Your task to perform on an android device: Open Android settings Image 0: 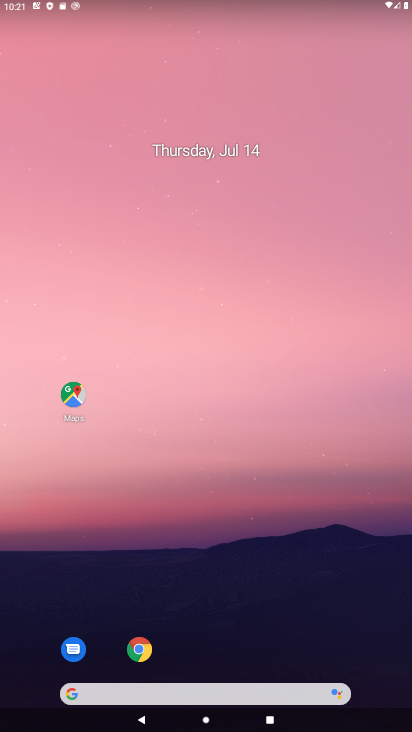
Step 0: drag from (215, 583) to (215, 62)
Your task to perform on an android device: Open Android settings Image 1: 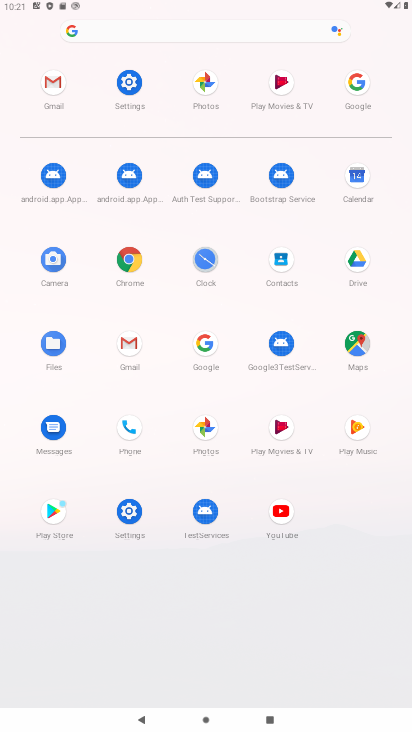
Step 1: click (119, 85)
Your task to perform on an android device: Open Android settings Image 2: 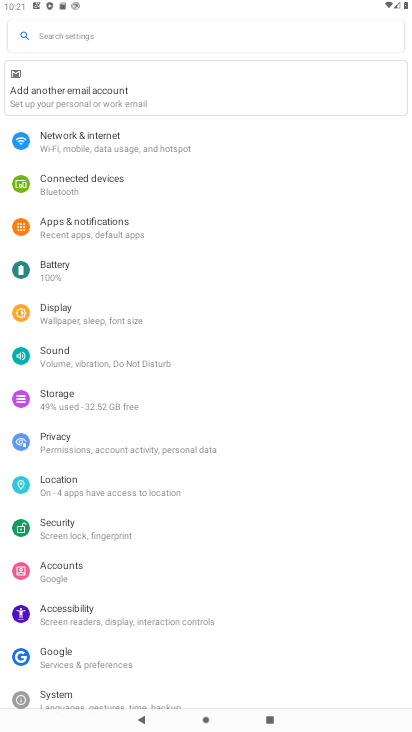
Step 2: task complete